Your task to perform on an android device: Open Google Chrome and click the shortcut for Amazon.com Image 0: 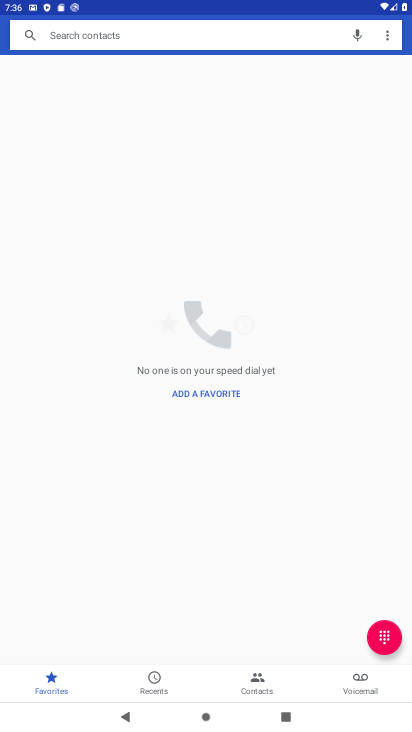
Step 0: press home button
Your task to perform on an android device: Open Google Chrome and click the shortcut for Amazon.com Image 1: 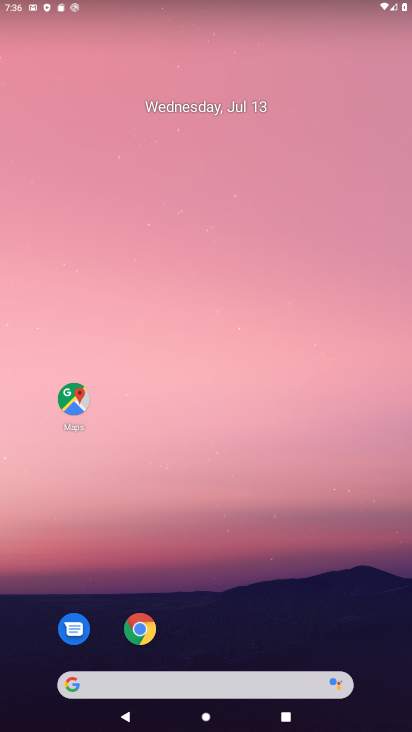
Step 1: click (149, 634)
Your task to perform on an android device: Open Google Chrome and click the shortcut for Amazon.com Image 2: 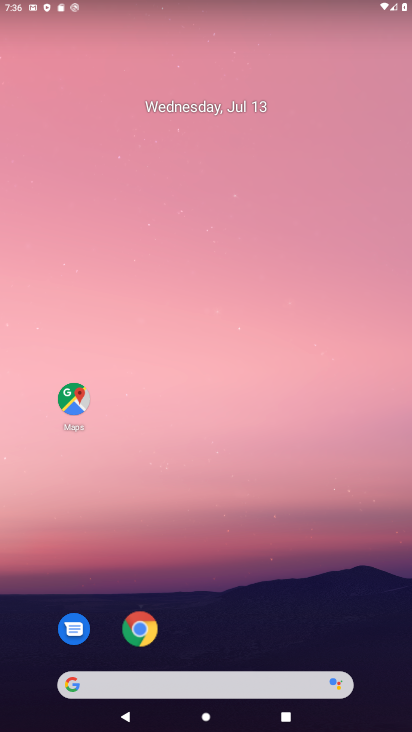
Step 2: click (142, 625)
Your task to perform on an android device: Open Google Chrome and click the shortcut for Amazon.com Image 3: 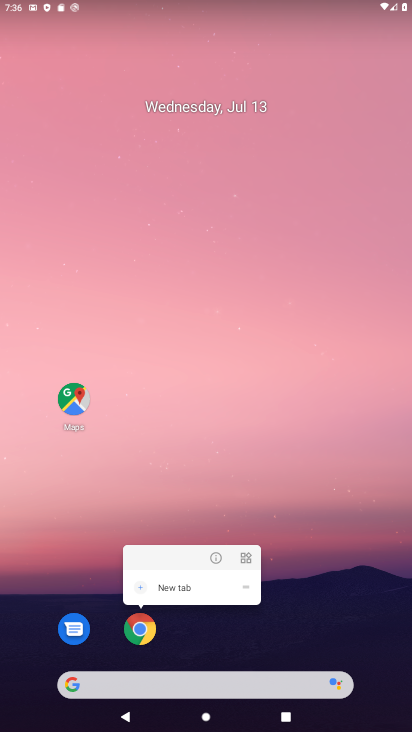
Step 3: click (142, 625)
Your task to perform on an android device: Open Google Chrome and click the shortcut for Amazon.com Image 4: 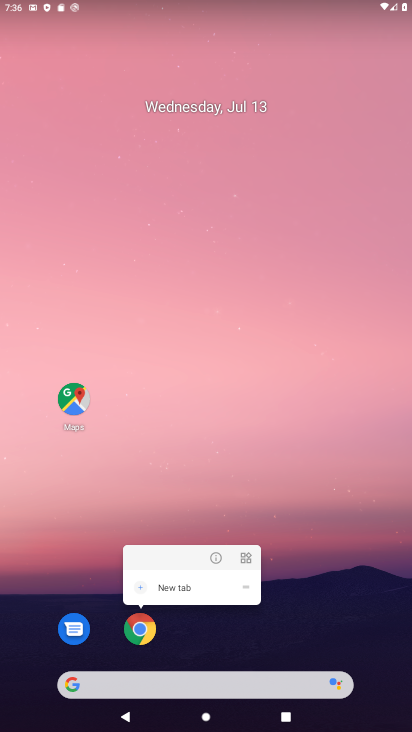
Step 4: task complete